Your task to perform on an android device: Go to Android settings Image 0: 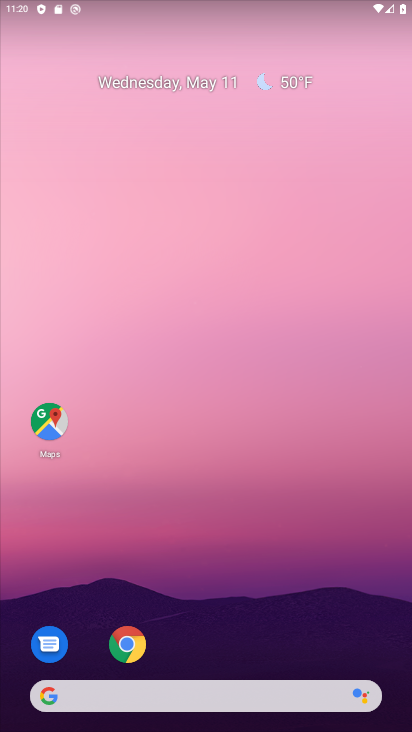
Step 0: drag from (311, 538) to (186, 0)
Your task to perform on an android device: Go to Android settings Image 1: 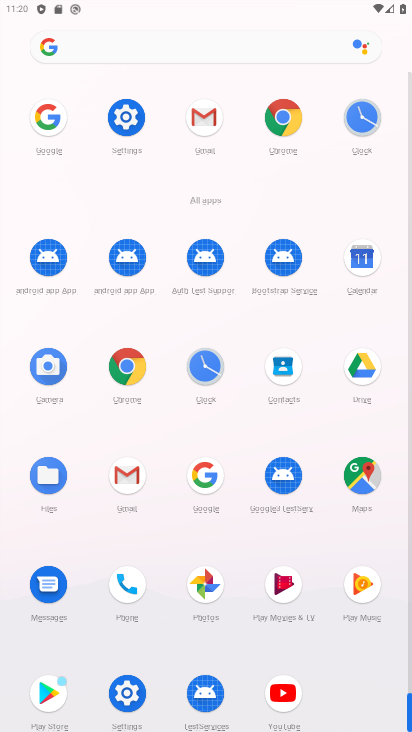
Step 1: click (119, 115)
Your task to perform on an android device: Go to Android settings Image 2: 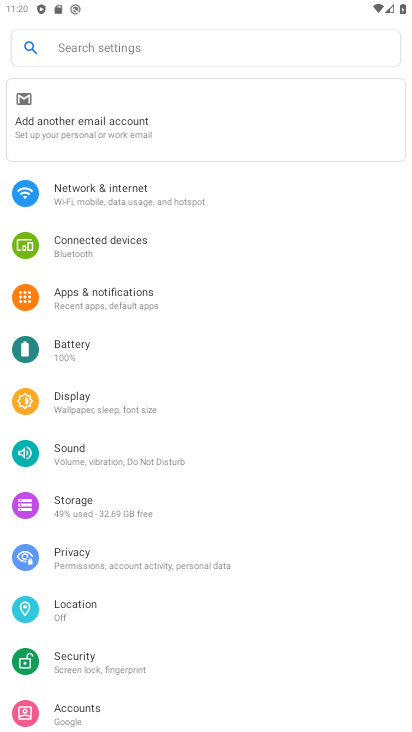
Step 2: drag from (191, 601) to (176, 160)
Your task to perform on an android device: Go to Android settings Image 3: 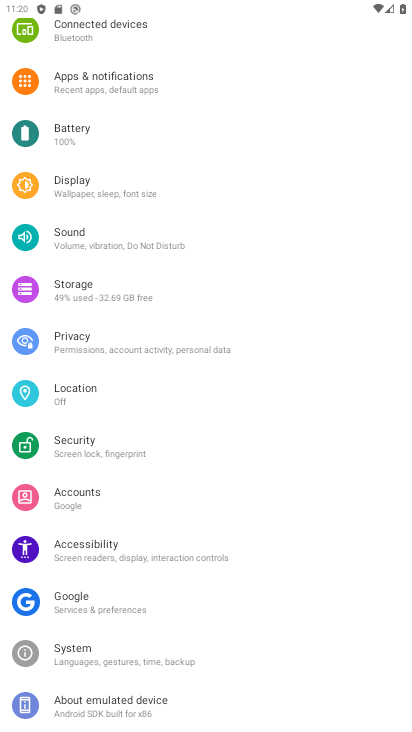
Step 3: click (145, 700)
Your task to perform on an android device: Go to Android settings Image 4: 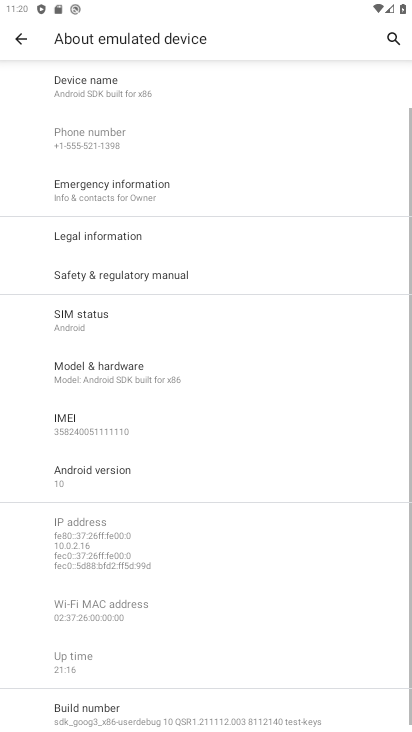
Step 4: click (76, 472)
Your task to perform on an android device: Go to Android settings Image 5: 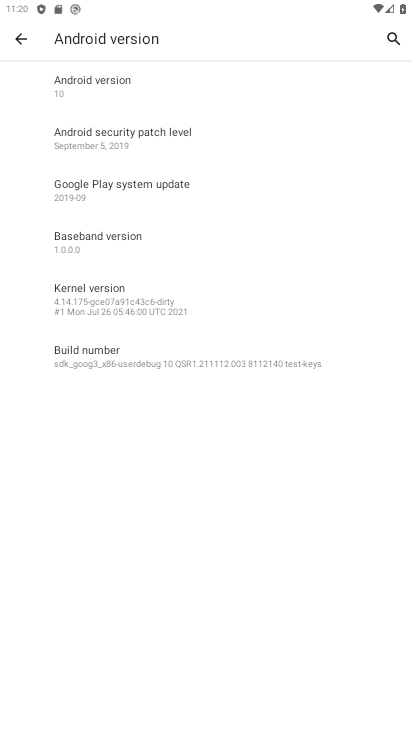
Step 5: task complete